Your task to perform on an android device: Search for seafood restaurants on Google Maps Image 0: 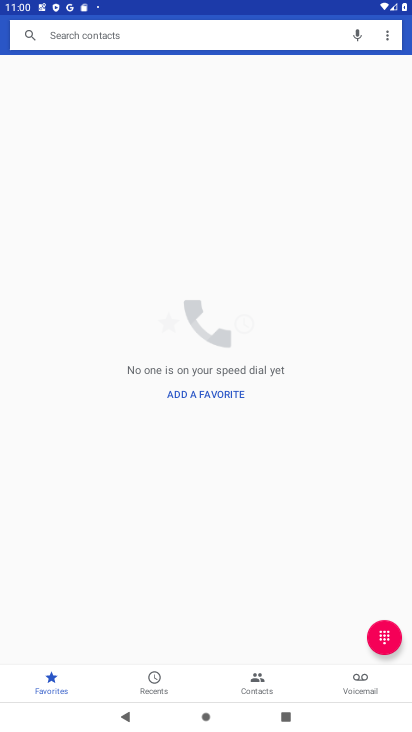
Step 0: press home button
Your task to perform on an android device: Search for seafood restaurants on Google Maps Image 1: 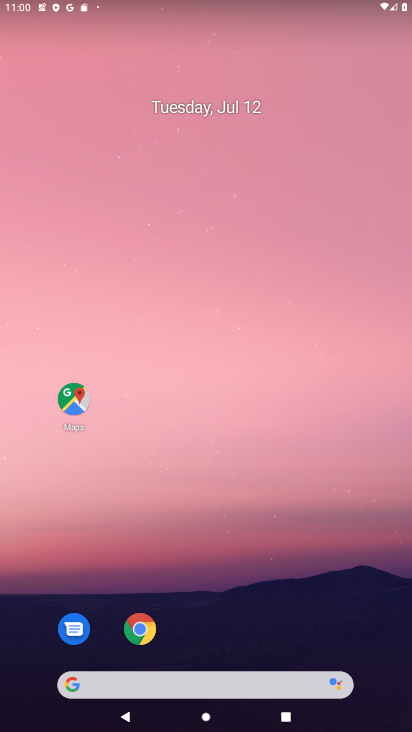
Step 1: drag from (260, 552) to (270, 129)
Your task to perform on an android device: Search for seafood restaurants on Google Maps Image 2: 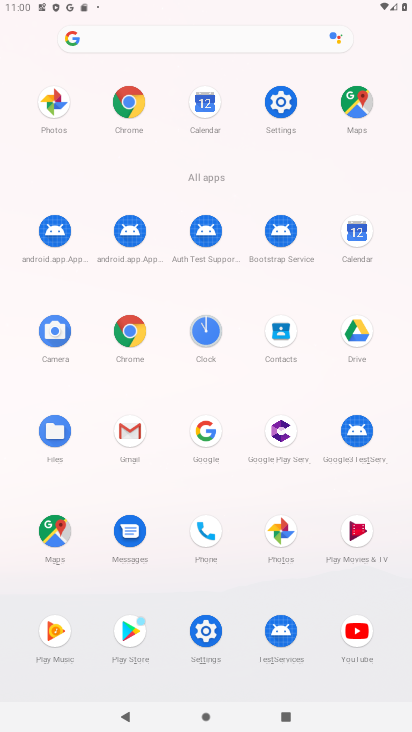
Step 2: click (350, 101)
Your task to perform on an android device: Search for seafood restaurants on Google Maps Image 3: 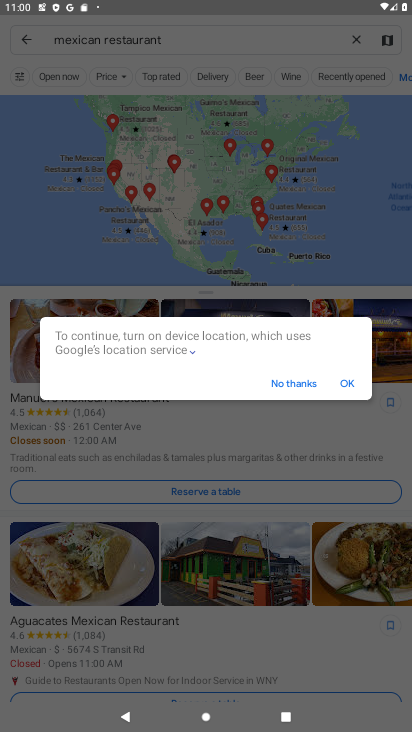
Step 3: click (354, 382)
Your task to perform on an android device: Search for seafood restaurants on Google Maps Image 4: 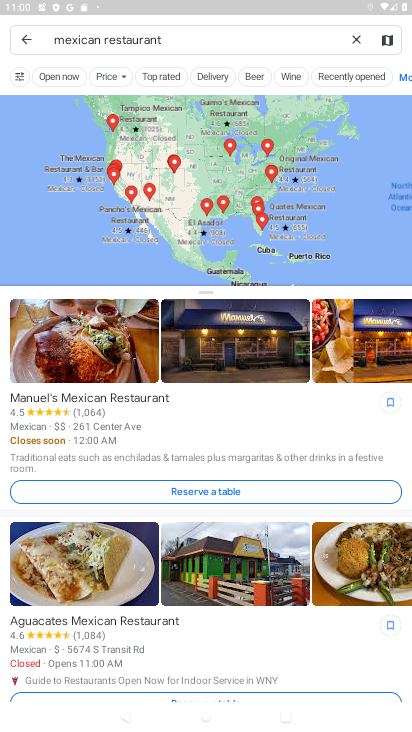
Step 4: click (354, 44)
Your task to perform on an android device: Search for seafood restaurants on Google Maps Image 5: 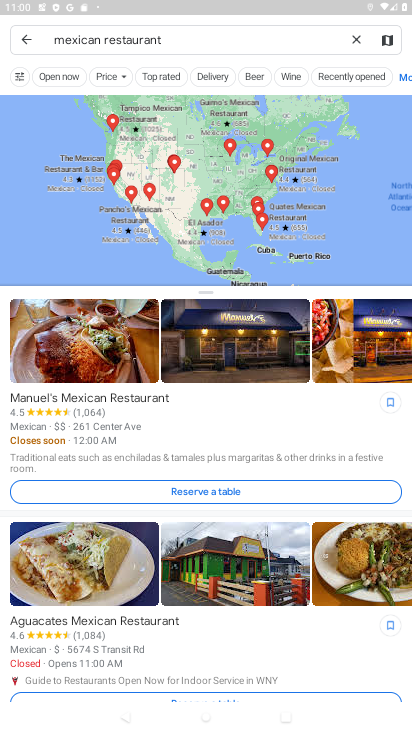
Step 5: click (354, 42)
Your task to perform on an android device: Search for seafood restaurants on Google Maps Image 6: 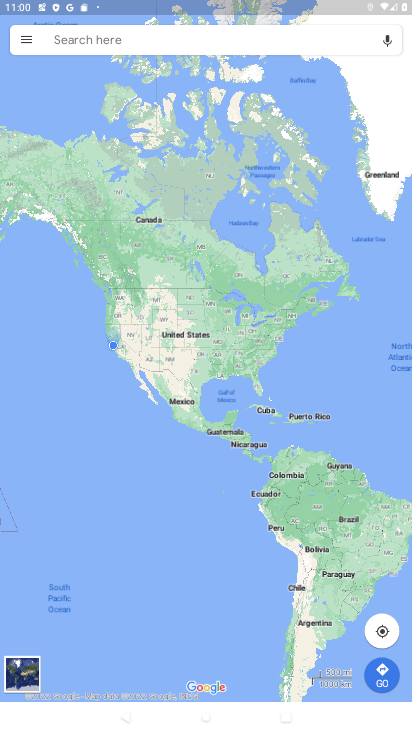
Step 6: click (175, 42)
Your task to perform on an android device: Search for seafood restaurants on Google Maps Image 7: 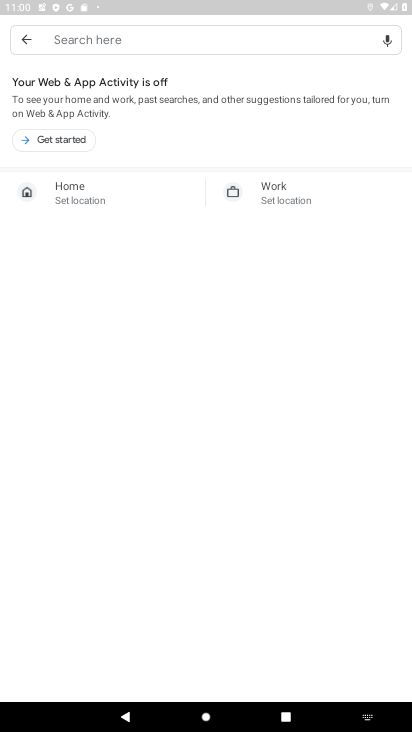
Step 7: click (214, 31)
Your task to perform on an android device: Search for seafood restaurants on Google Maps Image 8: 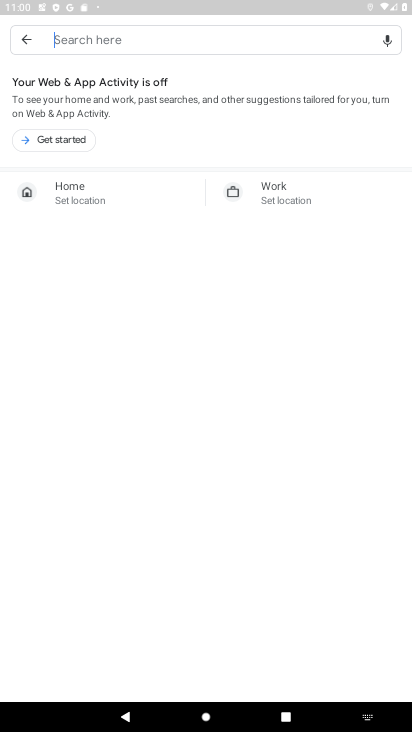
Step 8: type " seafood restaurants "
Your task to perform on an android device: Search for seafood restaurants on Google Maps Image 9: 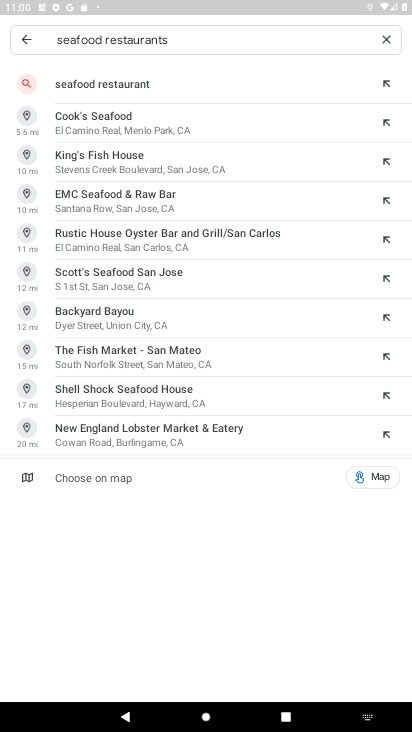
Step 9: click (163, 86)
Your task to perform on an android device: Search for seafood restaurants on Google Maps Image 10: 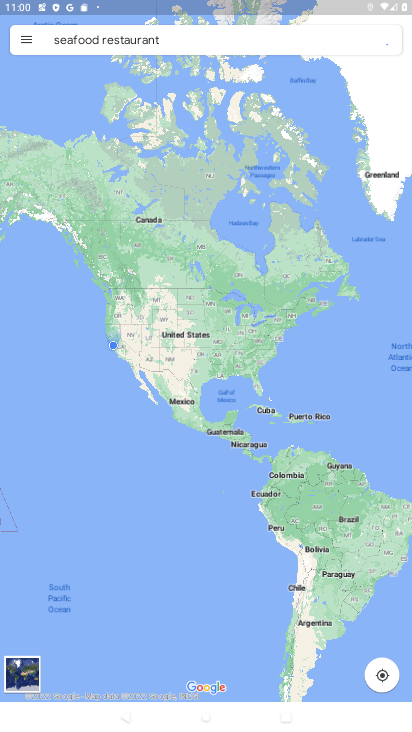
Step 10: task complete